Your task to perform on an android device: Check the news Image 0: 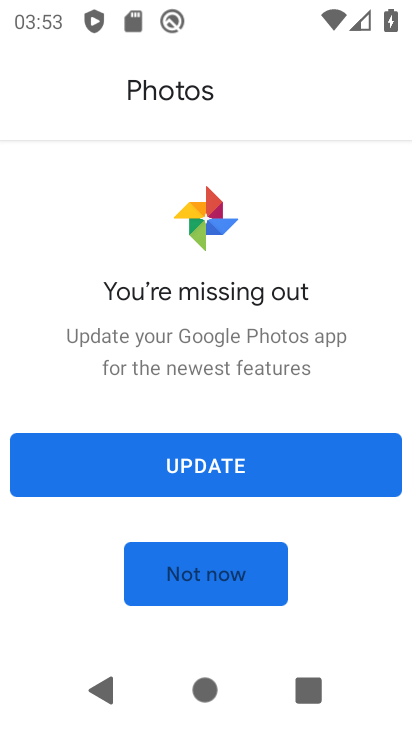
Step 0: press home button
Your task to perform on an android device: Check the news Image 1: 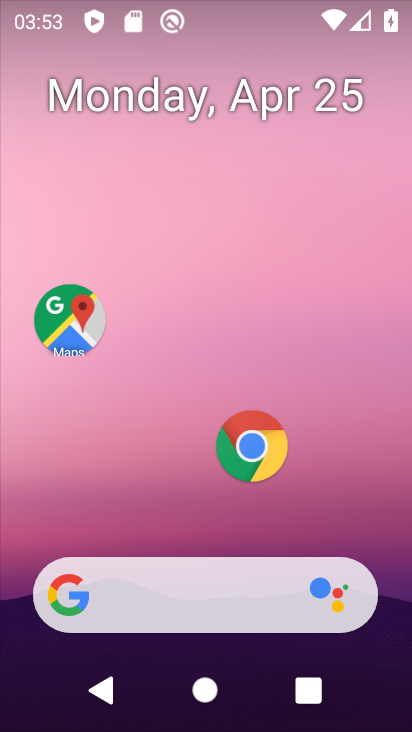
Step 1: click (192, 594)
Your task to perform on an android device: Check the news Image 2: 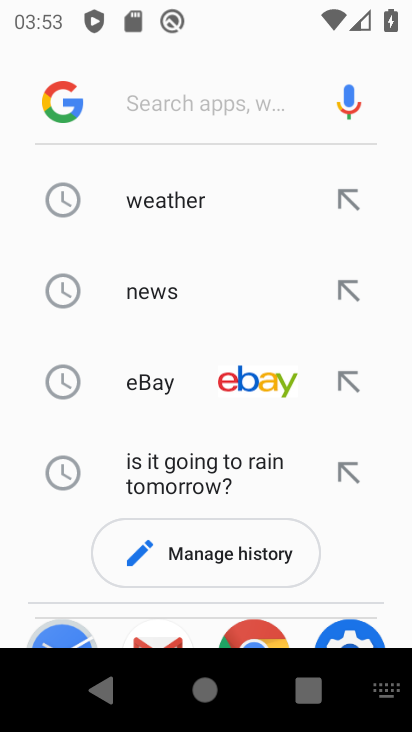
Step 2: click (59, 107)
Your task to perform on an android device: Check the news Image 3: 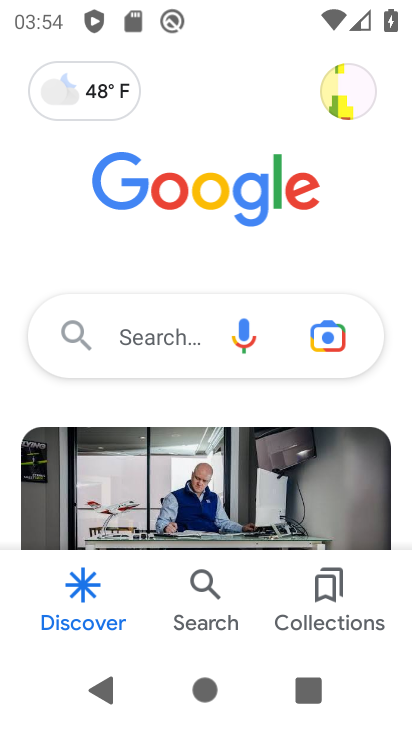
Step 3: task complete